Your task to perform on an android device: find which apps use the phone's location Image 0: 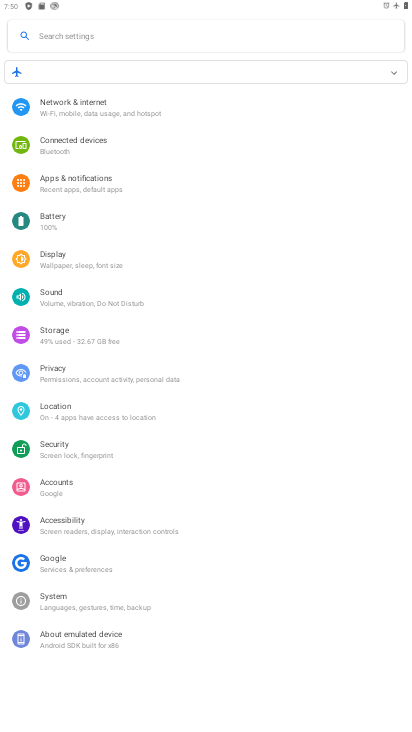
Step 0: click (82, 408)
Your task to perform on an android device: find which apps use the phone's location Image 1: 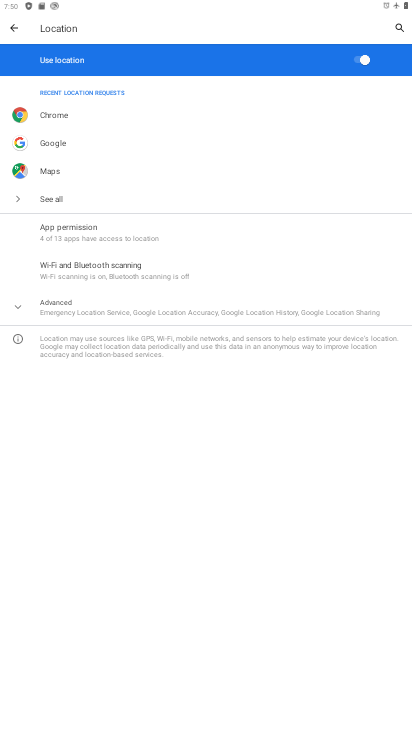
Step 1: click (81, 231)
Your task to perform on an android device: find which apps use the phone's location Image 2: 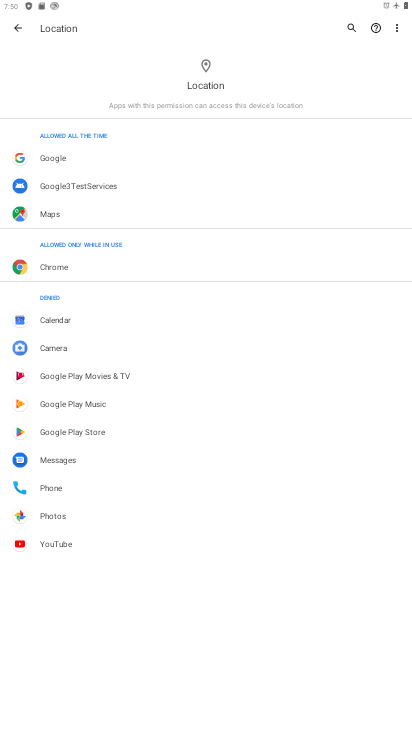
Step 2: task complete